Your task to perform on an android device: add a contact Image 0: 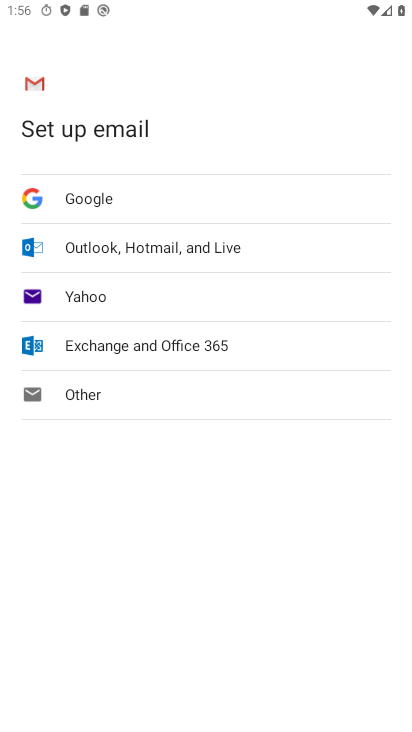
Step 0: press home button
Your task to perform on an android device: add a contact Image 1: 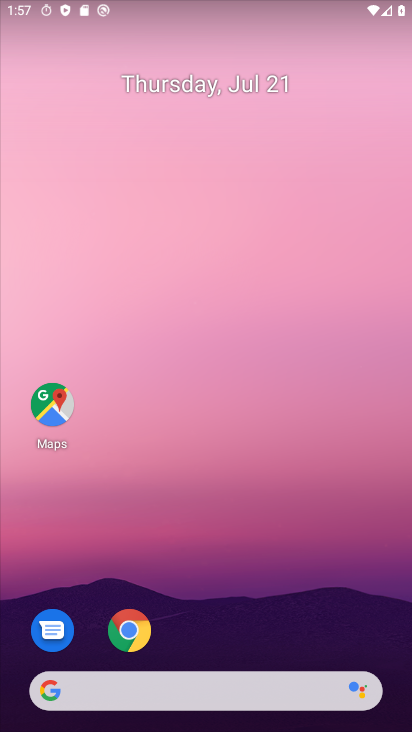
Step 1: drag from (173, 650) to (208, 246)
Your task to perform on an android device: add a contact Image 2: 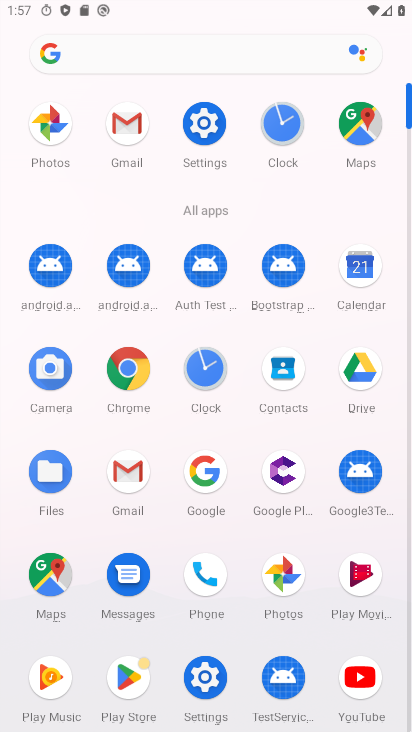
Step 2: click (285, 375)
Your task to perform on an android device: add a contact Image 3: 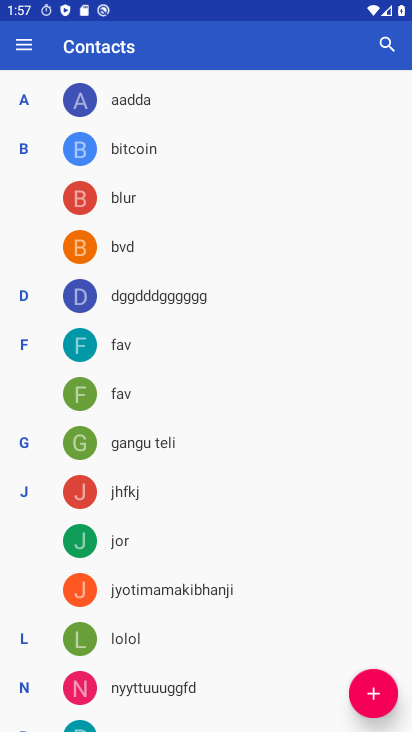
Step 3: click (371, 696)
Your task to perform on an android device: add a contact Image 4: 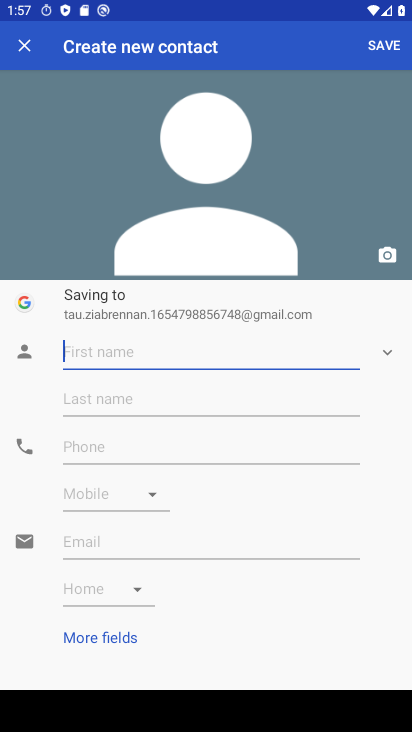
Step 4: type "ijhbg"
Your task to perform on an android device: add a contact Image 5: 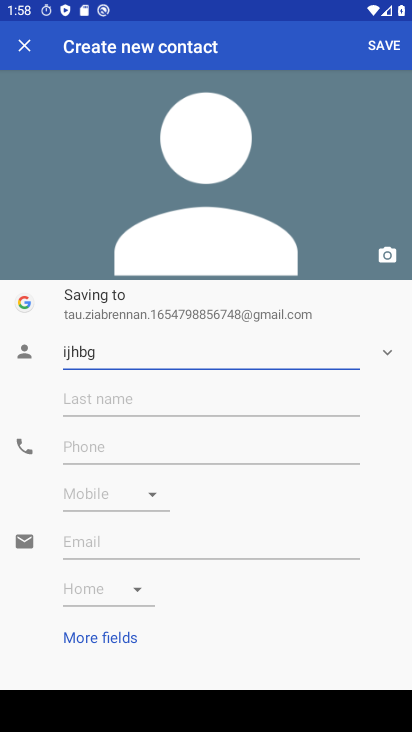
Step 5: click (190, 441)
Your task to perform on an android device: add a contact Image 6: 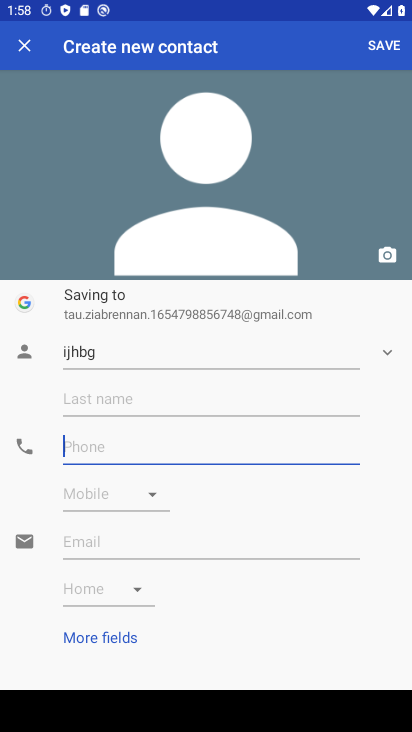
Step 6: type "o98765434567"
Your task to perform on an android device: add a contact Image 7: 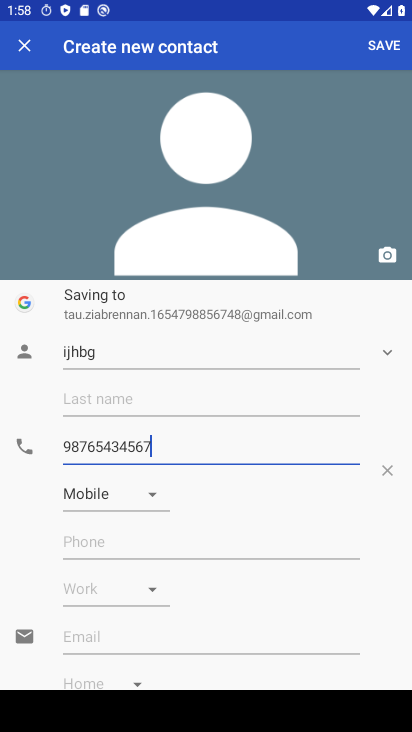
Step 7: click (383, 32)
Your task to perform on an android device: add a contact Image 8: 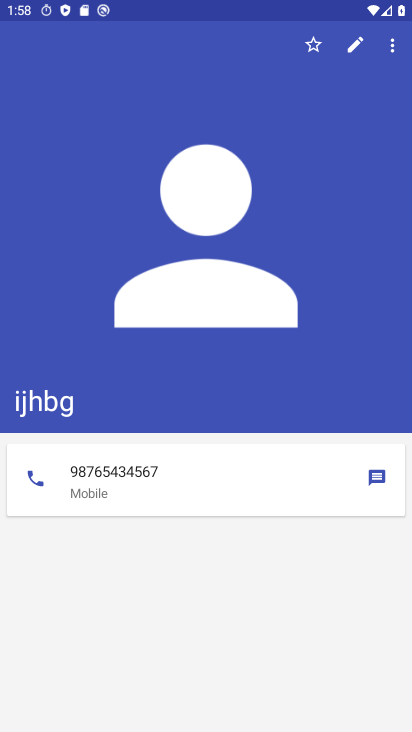
Step 8: task complete